Your task to perform on an android device: Search for "razer blade" on target, select the first entry, and add it to the cart. Image 0: 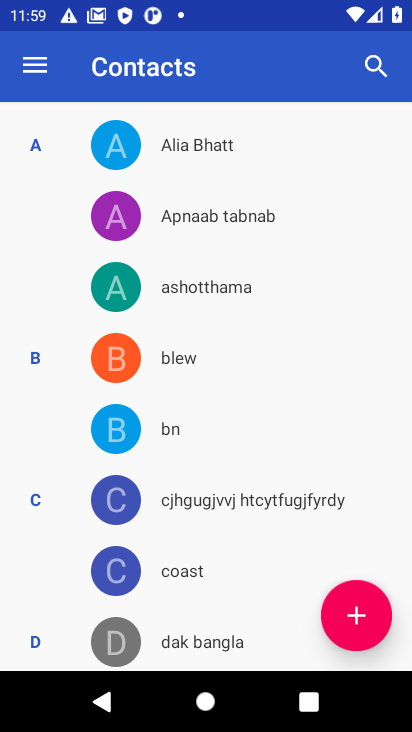
Step 0: press home button
Your task to perform on an android device: Search for "razer blade" on target, select the first entry, and add it to the cart. Image 1: 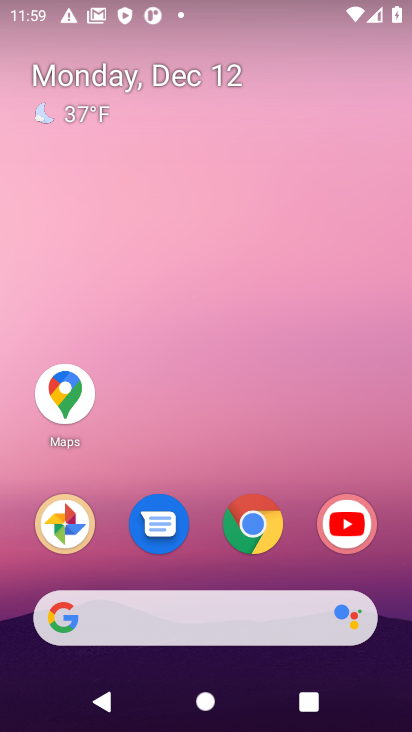
Step 1: click (247, 550)
Your task to perform on an android device: Search for "razer blade" on target, select the first entry, and add it to the cart. Image 2: 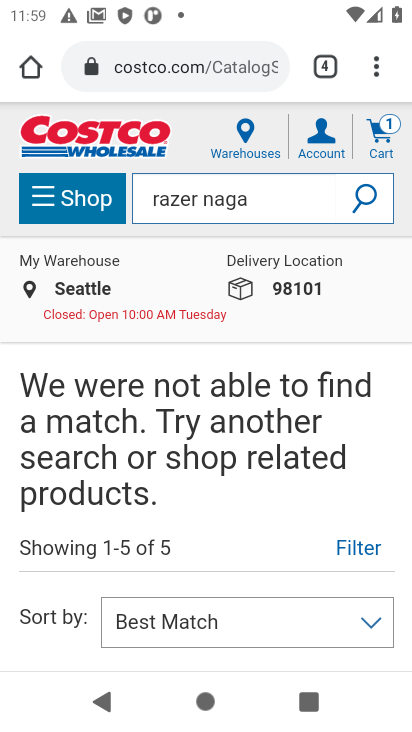
Step 2: click (169, 69)
Your task to perform on an android device: Search for "razer blade" on target, select the first entry, and add it to the cart. Image 3: 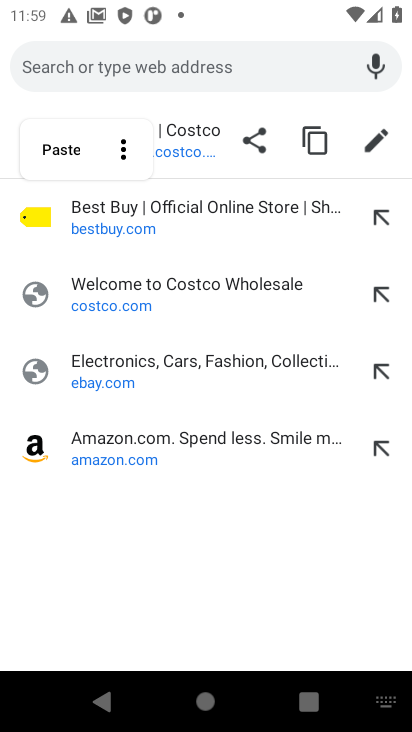
Step 3: type "target.com"
Your task to perform on an android device: Search for "razer blade" on target, select the first entry, and add it to the cart. Image 4: 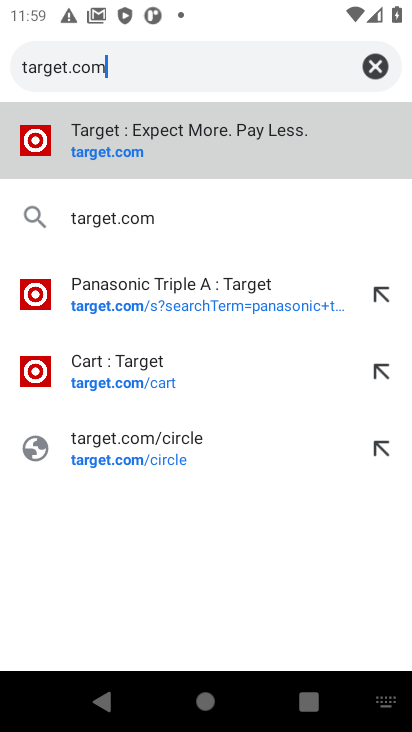
Step 4: click (119, 155)
Your task to perform on an android device: Search for "razer blade" on target, select the first entry, and add it to the cart. Image 5: 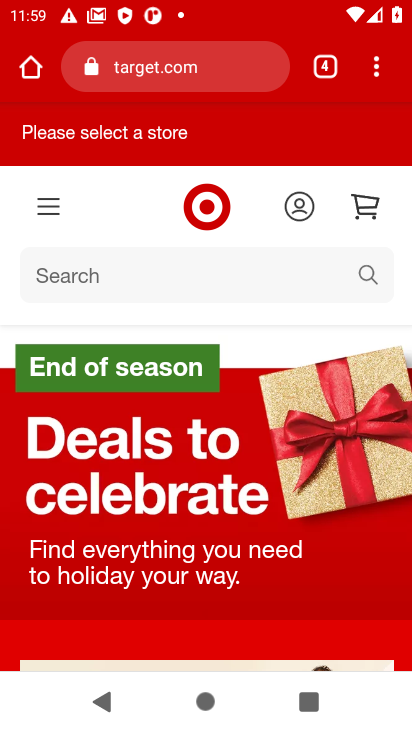
Step 5: click (47, 277)
Your task to perform on an android device: Search for "razer blade" on target, select the first entry, and add it to the cart. Image 6: 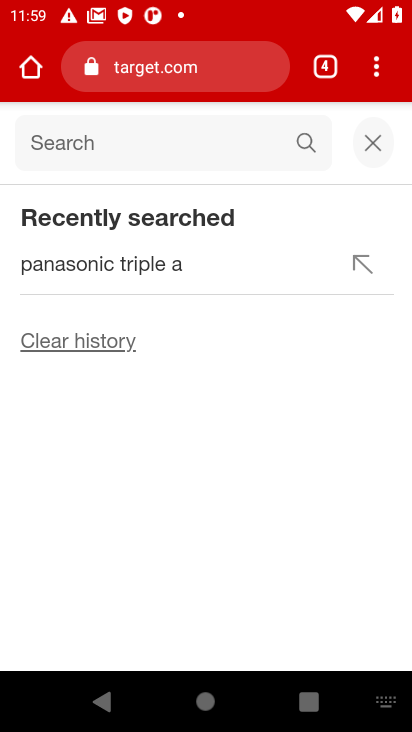
Step 6: type "razer blade"
Your task to perform on an android device: Search for "razer blade" on target, select the first entry, and add it to the cart. Image 7: 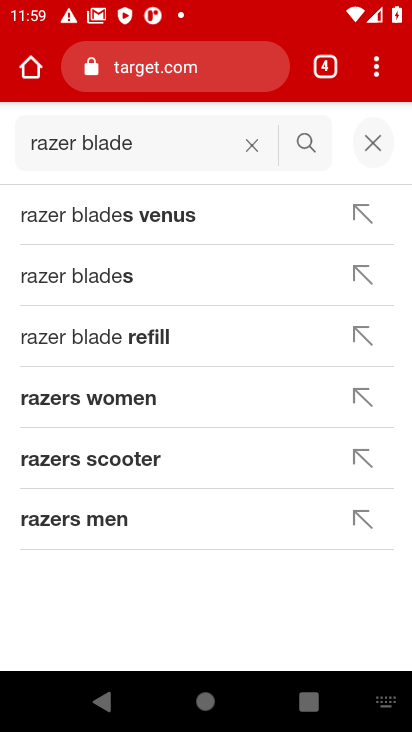
Step 7: click (306, 146)
Your task to perform on an android device: Search for "razer blade" on target, select the first entry, and add it to the cart. Image 8: 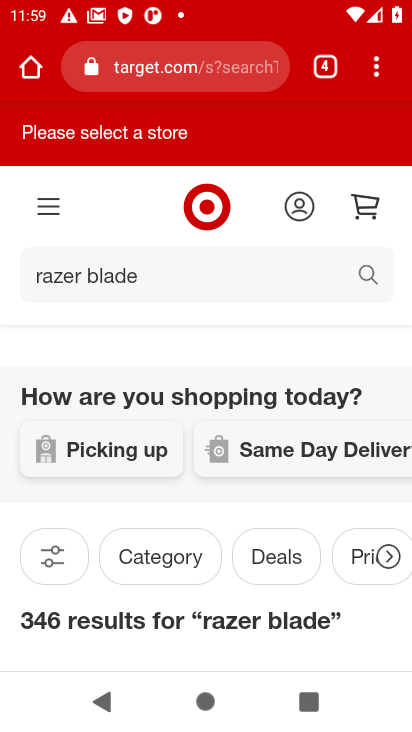
Step 8: task complete